Your task to perform on an android device: open a new tab in the chrome app Image 0: 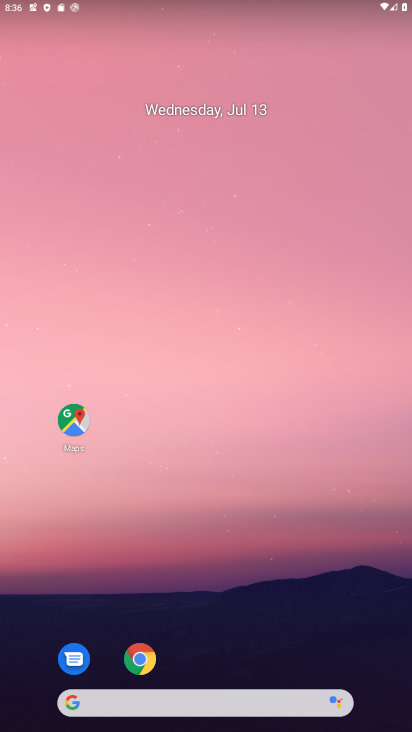
Step 0: click (144, 656)
Your task to perform on an android device: open a new tab in the chrome app Image 1: 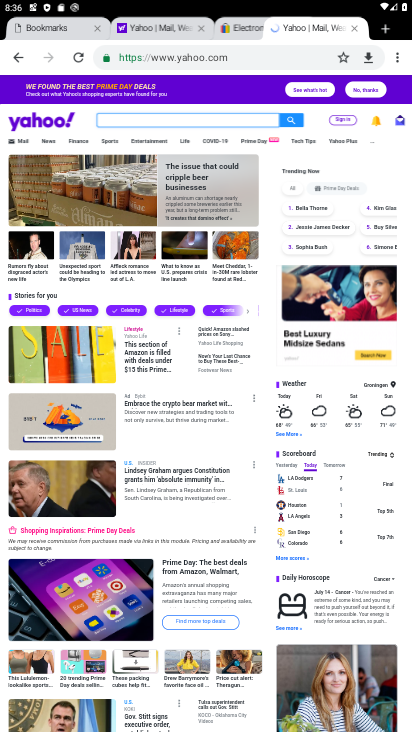
Step 1: click (382, 22)
Your task to perform on an android device: open a new tab in the chrome app Image 2: 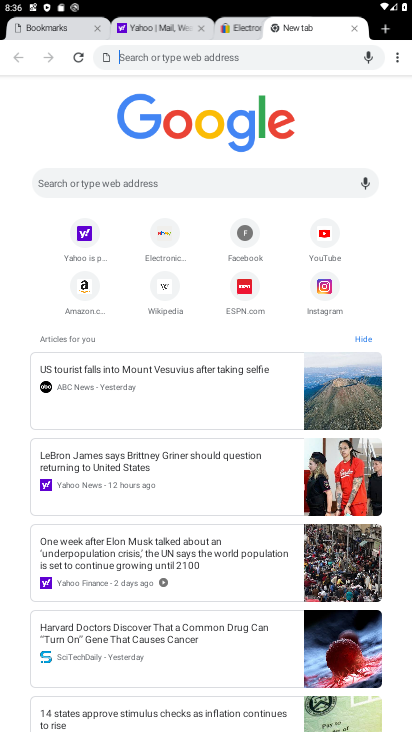
Step 2: task complete